Your task to perform on an android device: Check the weather Image 0: 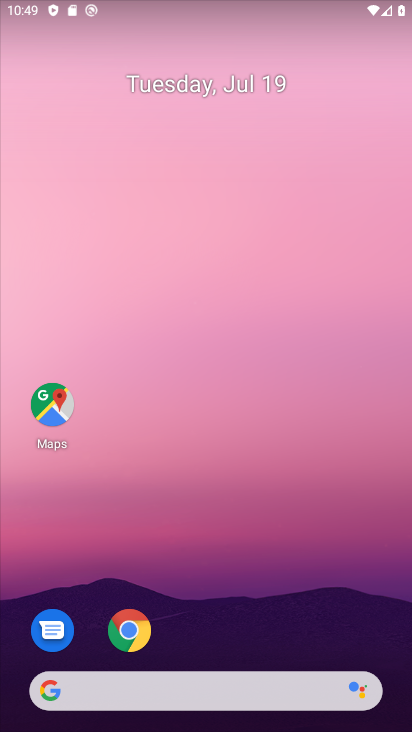
Step 0: drag from (177, 570) to (232, 62)
Your task to perform on an android device: Check the weather Image 1: 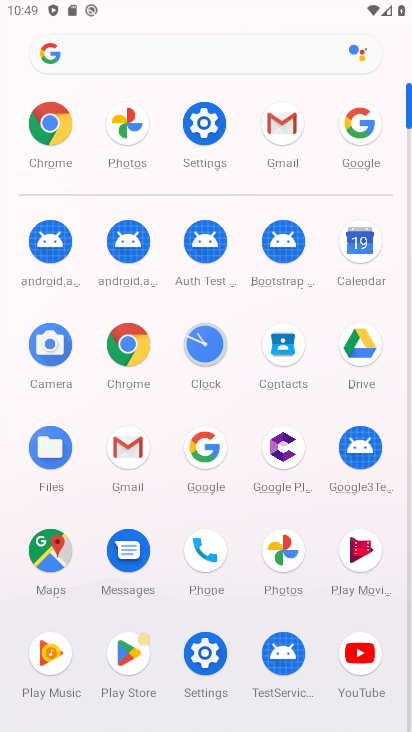
Step 1: click (207, 449)
Your task to perform on an android device: Check the weather Image 2: 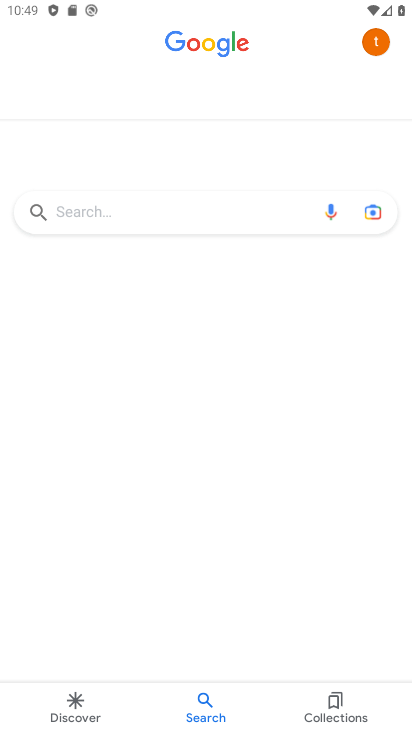
Step 2: click (187, 219)
Your task to perform on an android device: Check the weather Image 3: 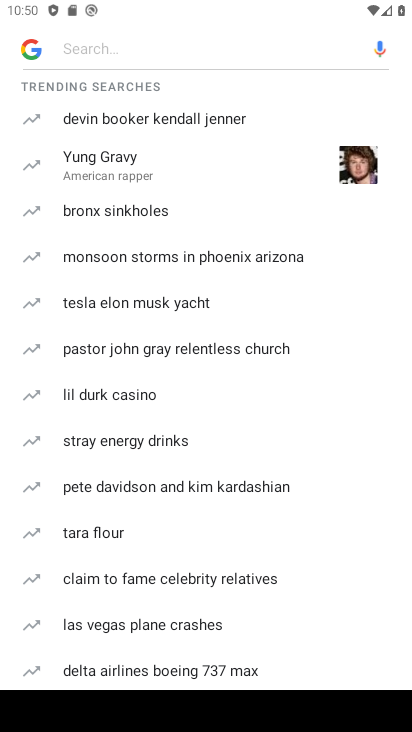
Step 3: type " weather"
Your task to perform on an android device: Check the weather Image 4: 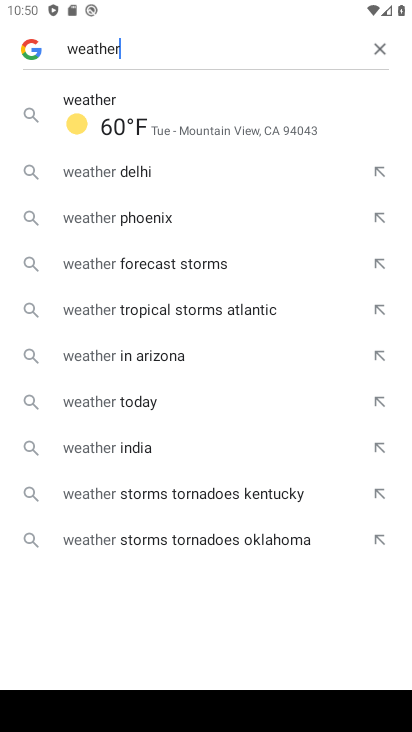
Step 4: click (105, 125)
Your task to perform on an android device: Check the weather Image 5: 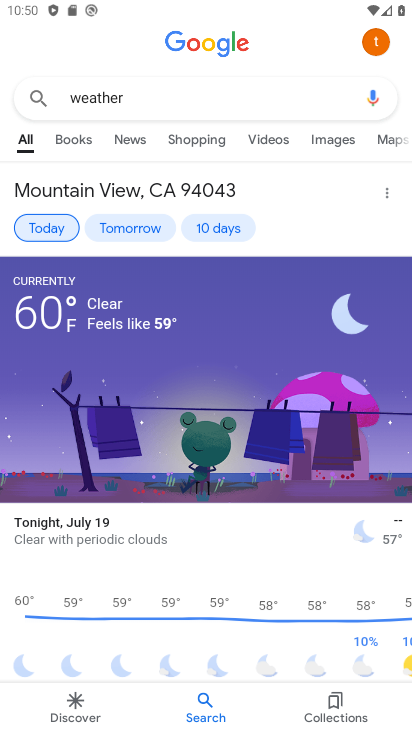
Step 5: task complete